Your task to perform on an android device: Open Yahoo.com Image 0: 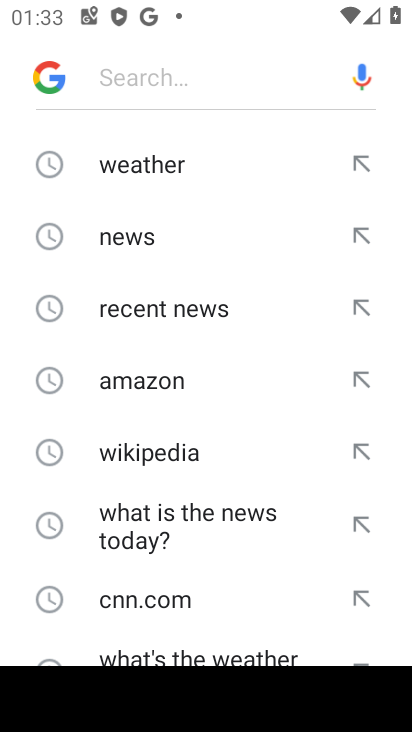
Step 0: drag from (137, 529) to (89, 71)
Your task to perform on an android device: Open Yahoo.com Image 1: 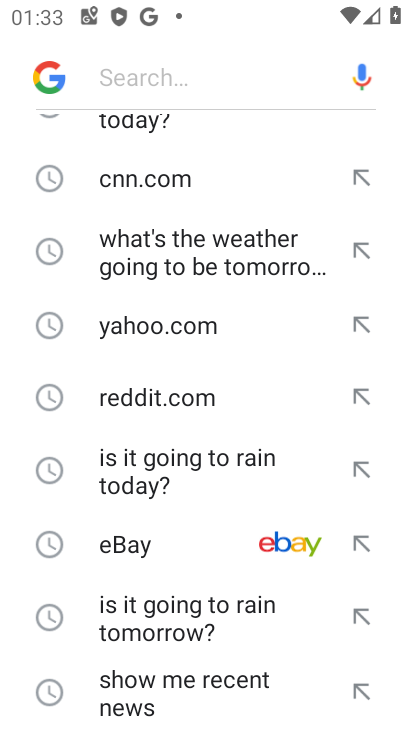
Step 1: click (152, 335)
Your task to perform on an android device: Open Yahoo.com Image 2: 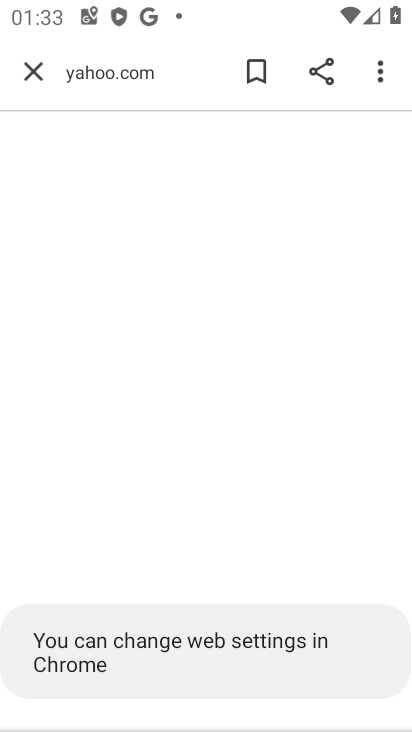
Step 2: task complete